Your task to perform on an android device: find photos in the google photos app Image 0: 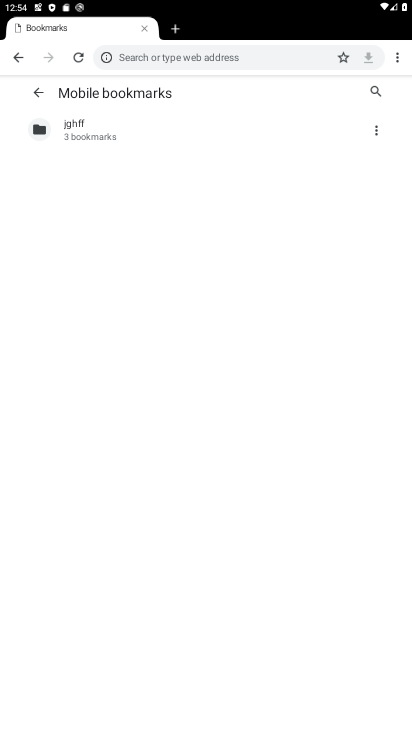
Step 0: press home button
Your task to perform on an android device: find photos in the google photos app Image 1: 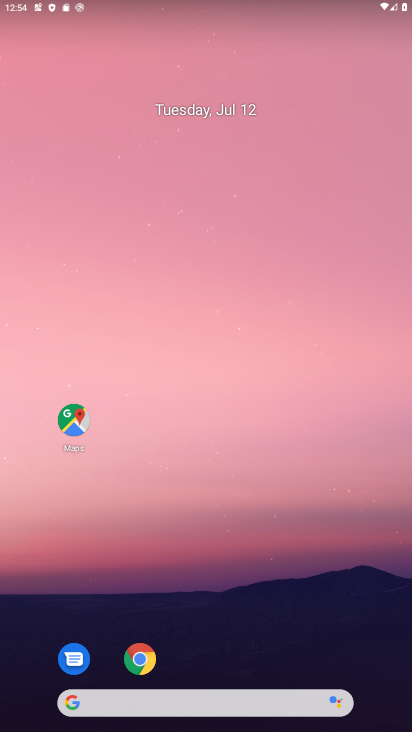
Step 1: drag from (196, 672) to (177, 185)
Your task to perform on an android device: find photos in the google photos app Image 2: 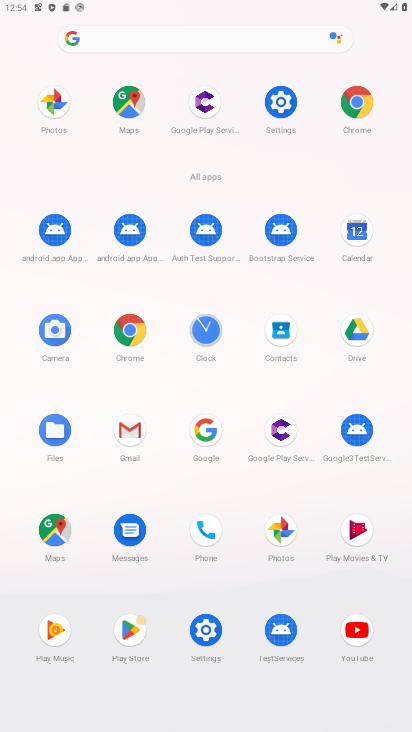
Step 2: click (54, 100)
Your task to perform on an android device: find photos in the google photos app Image 3: 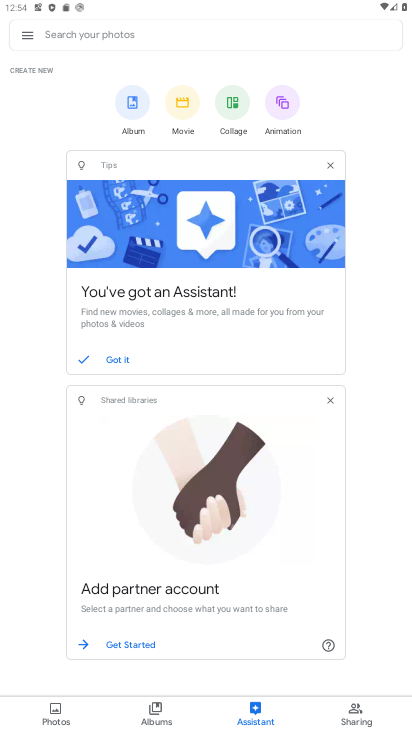
Step 3: click (154, 42)
Your task to perform on an android device: find photos in the google photos app Image 4: 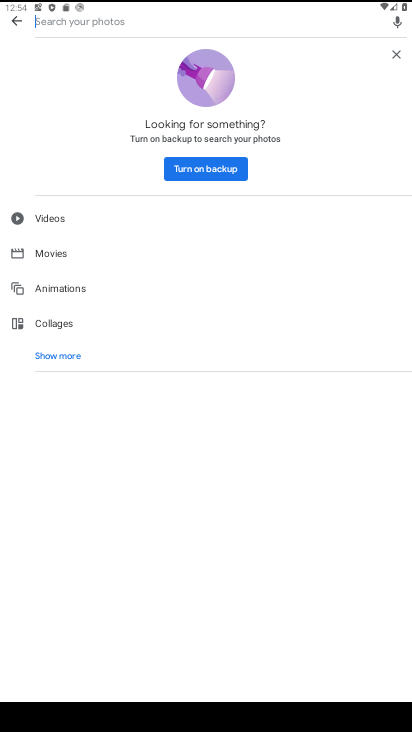
Step 4: type "aa"
Your task to perform on an android device: find photos in the google photos app Image 5: 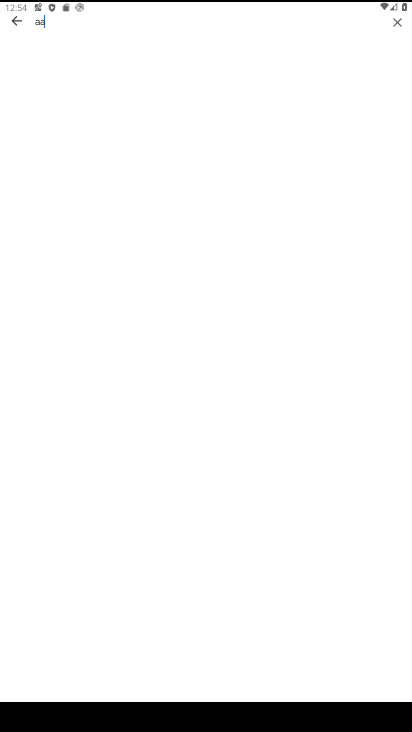
Step 5: task complete